Your task to perform on an android device: turn on the 12-hour format for clock Image 0: 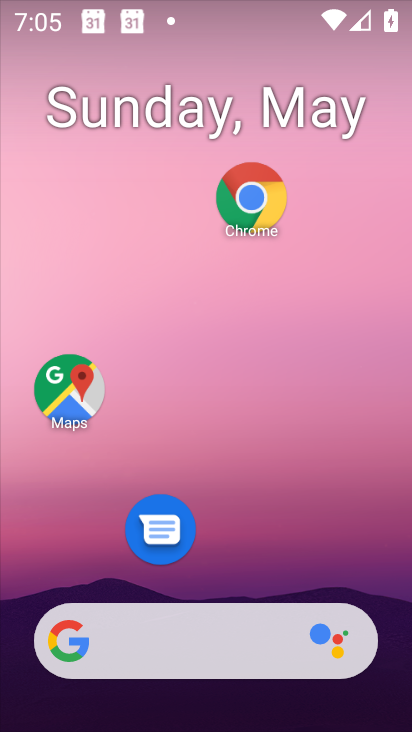
Step 0: drag from (259, 551) to (369, 99)
Your task to perform on an android device: turn on the 12-hour format for clock Image 1: 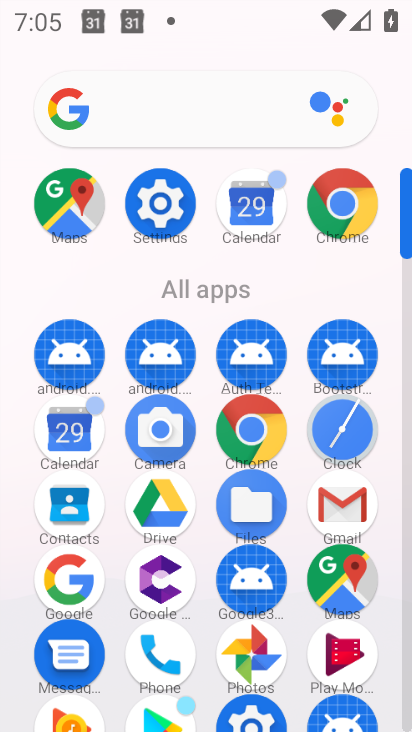
Step 1: click (350, 426)
Your task to perform on an android device: turn on the 12-hour format for clock Image 2: 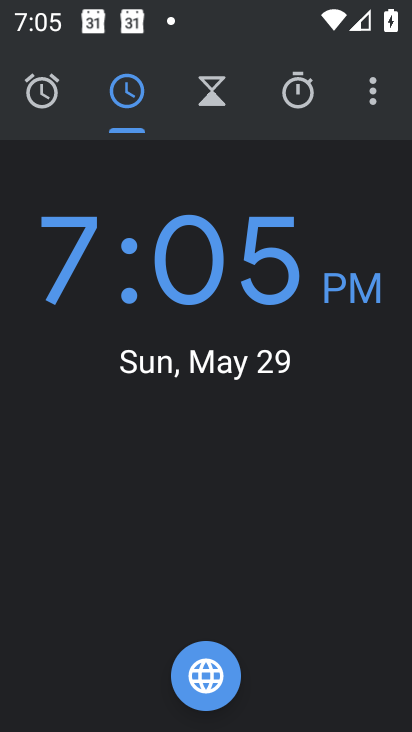
Step 2: click (373, 106)
Your task to perform on an android device: turn on the 12-hour format for clock Image 3: 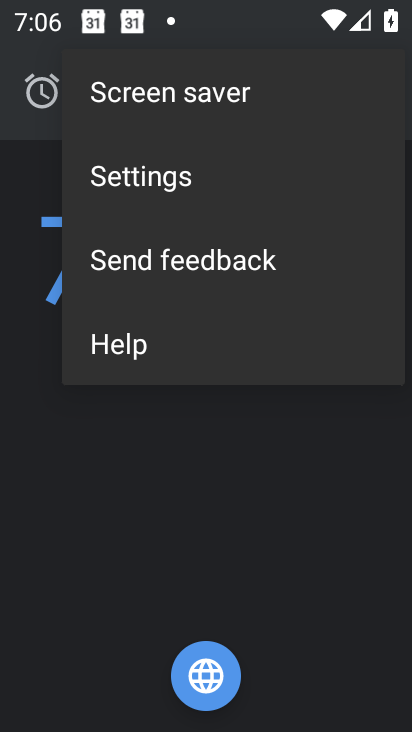
Step 3: click (239, 168)
Your task to perform on an android device: turn on the 12-hour format for clock Image 4: 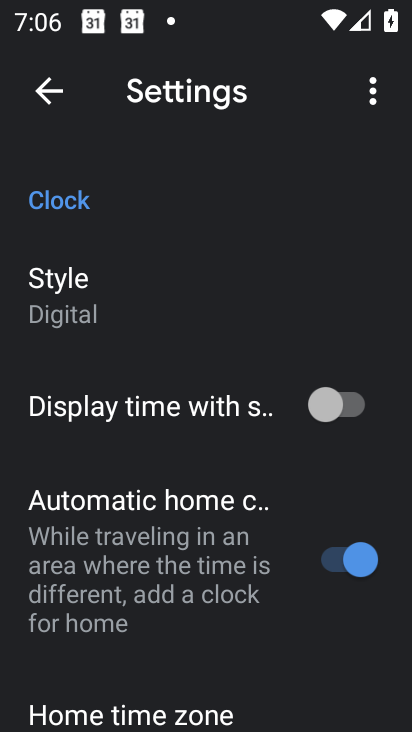
Step 4: drag from (170, 640) to (228, 330)
Your task to perform on an android device: turn on the 12-hour format for clock Image 5: 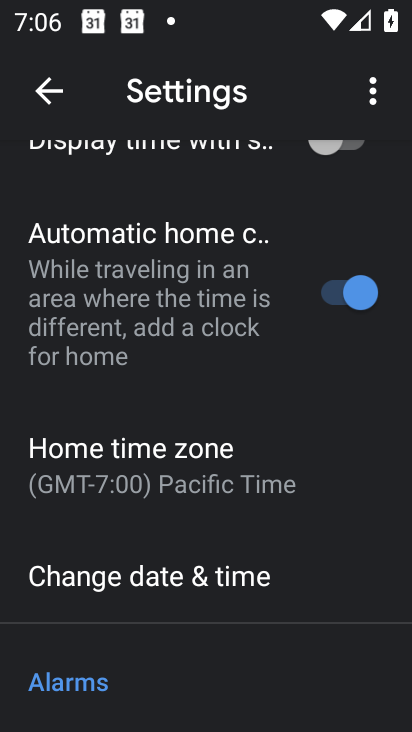
Step 5: click (180, 590)
Your task to perform on an android device: turn on the 12-hour format for clock Image 6: 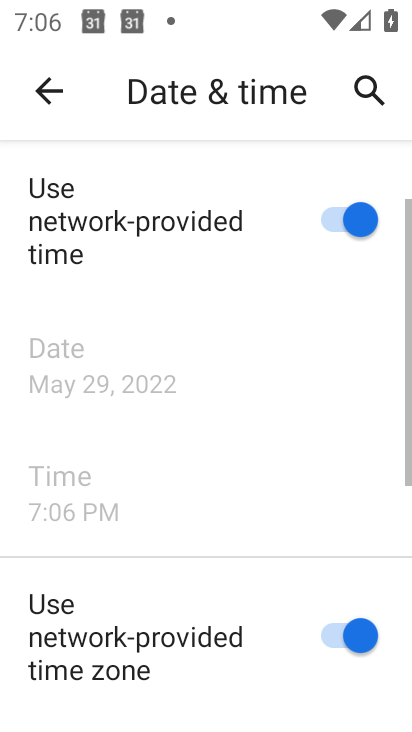
Step 6: task complete